Your task to perform on an android device: Go to notification settings Image 0: 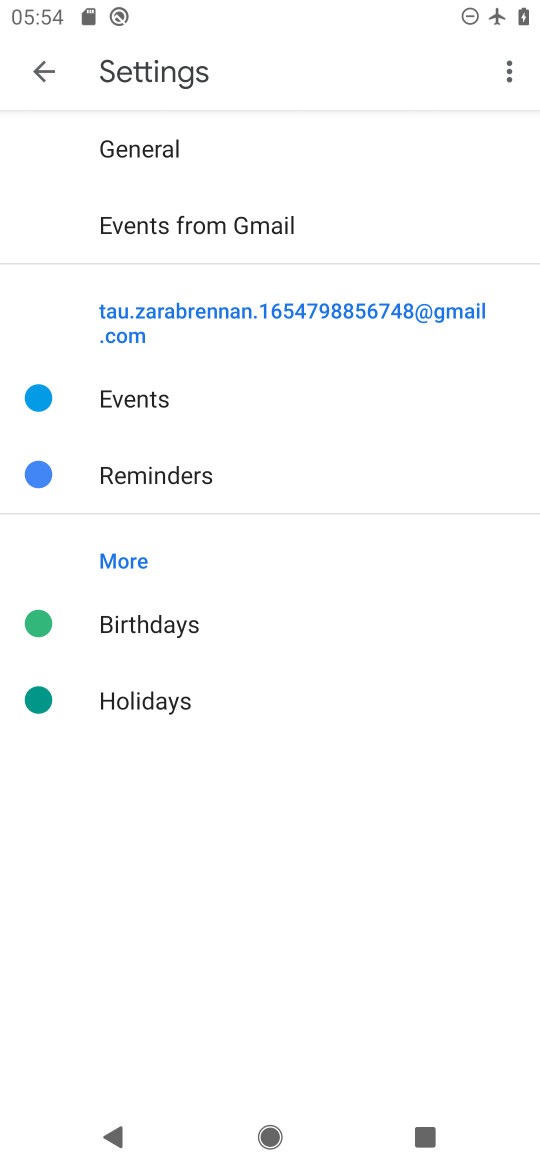
Step 0: press back button
Your task to perform on an android device: Go to notification settings Image 1: 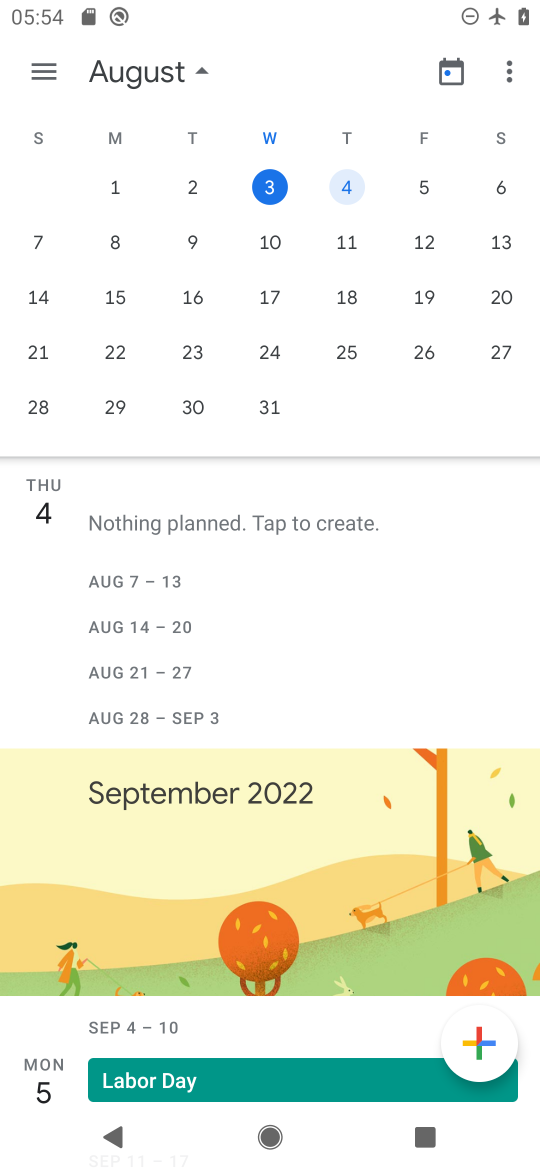
Step 1: press home button
Your task to perform on an android device: Go to notification settings Image 2: 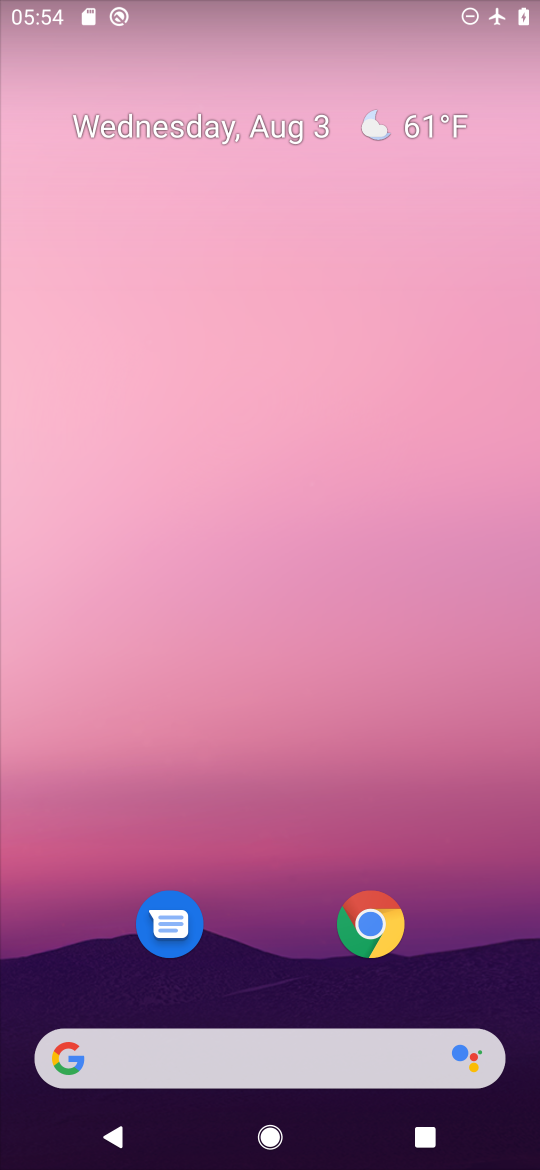
Step 2: drag from (270, 980) to (312, 105)
Your task to perform on an android device: Go to notification settings Image 3: 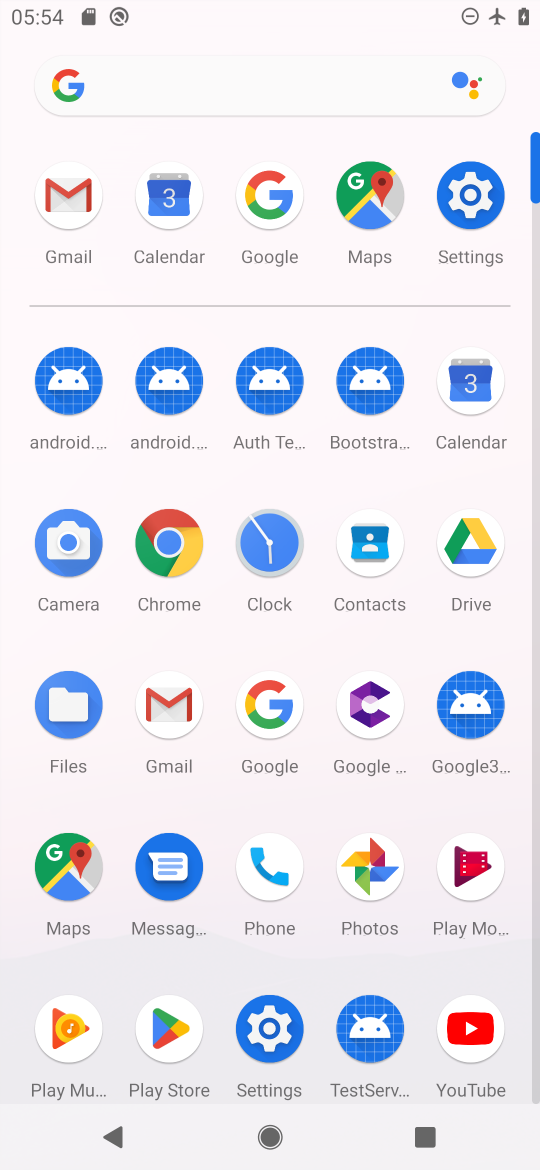
Step 3: click (459, 211)
Your task to perform on an android device: Go to notification settings Image 4: 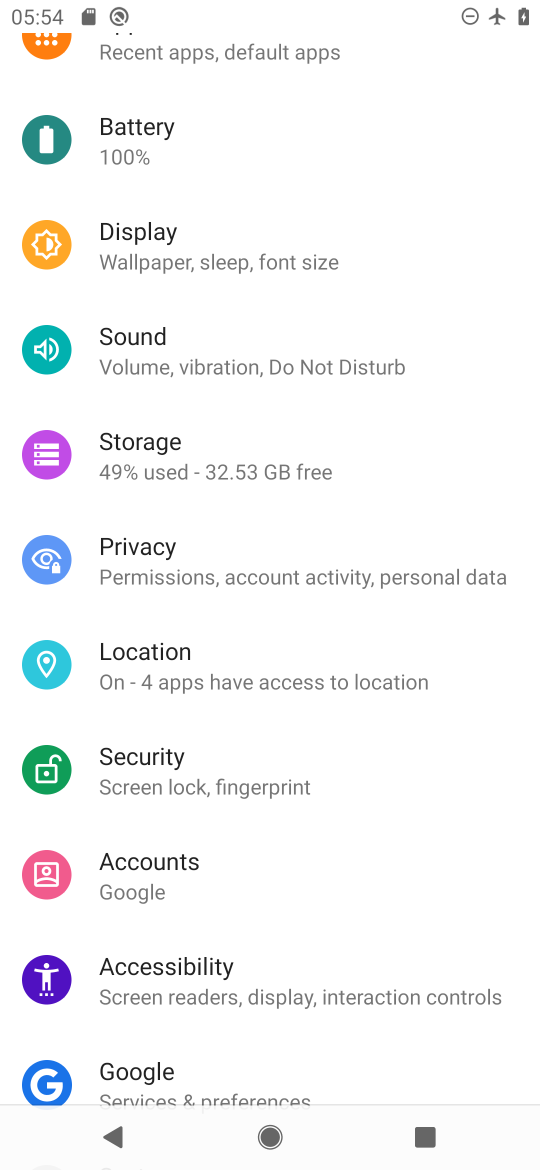
Step 4: drag from (271, 332) to (285, 716)
Your task to perform on an android device: Go to notification settings Image 5: 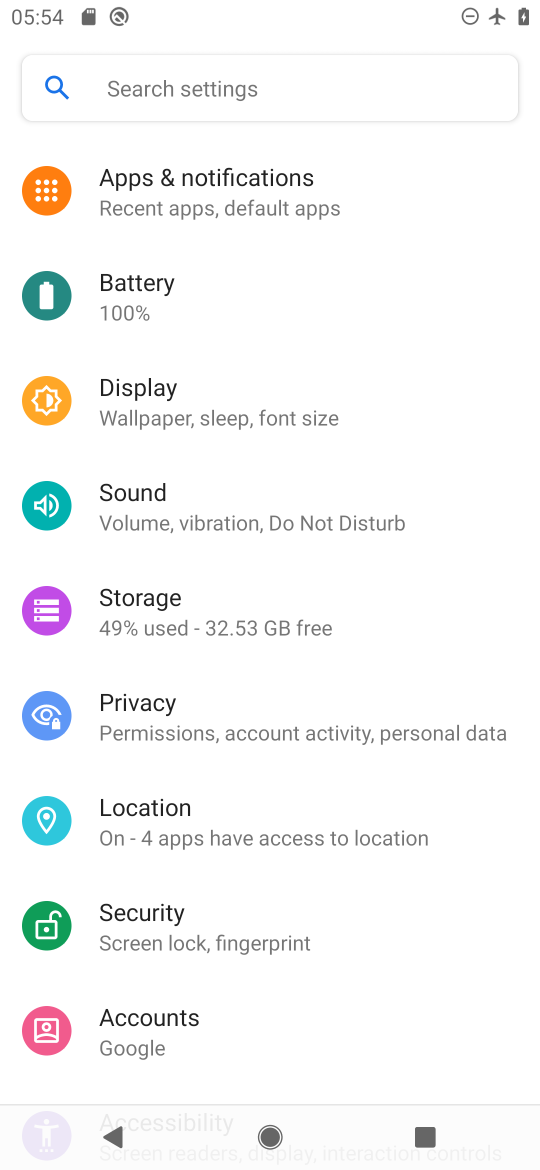
Step 5: click (272, 175)
Your task to perform on an android device: Go to notification settings Image 6: 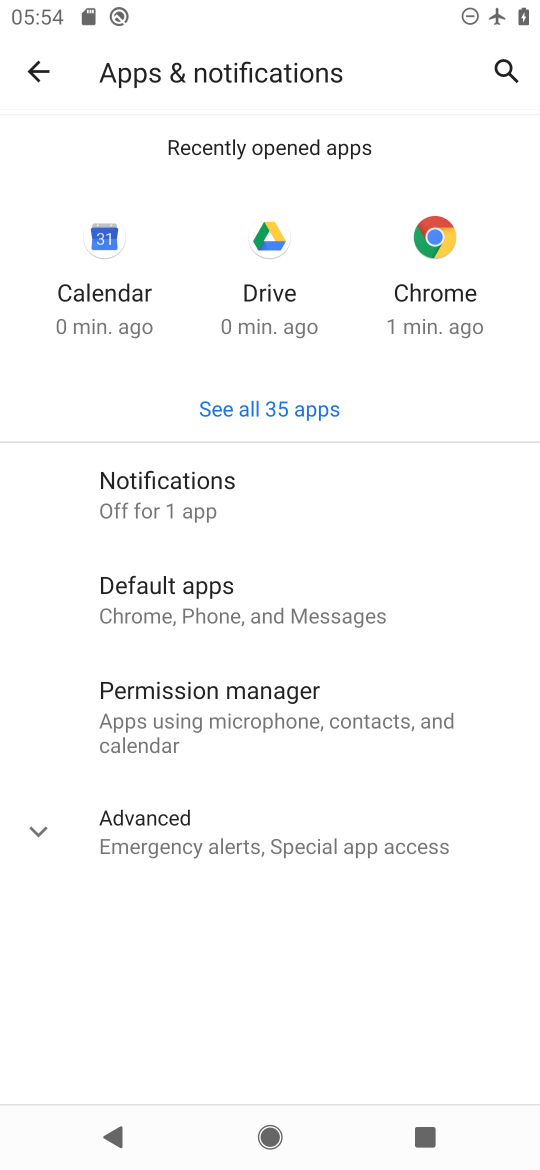
Step 6: click (388, 491)
Your task to perform on an android device: Go to notification settings Image 7: 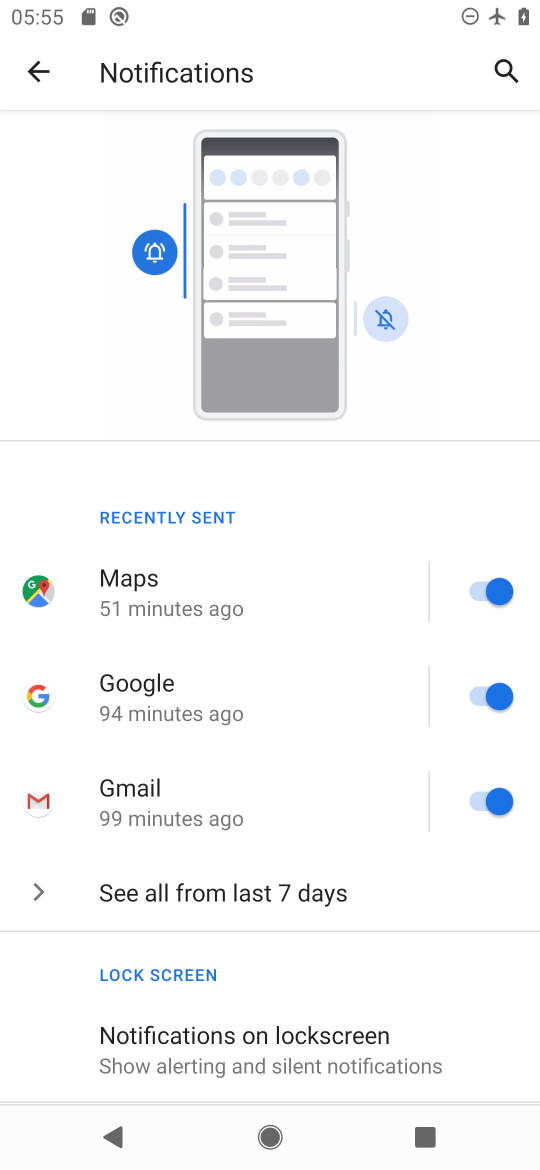
Step 7: task complete